Your task to perform on an android device: Check the news Image 0: 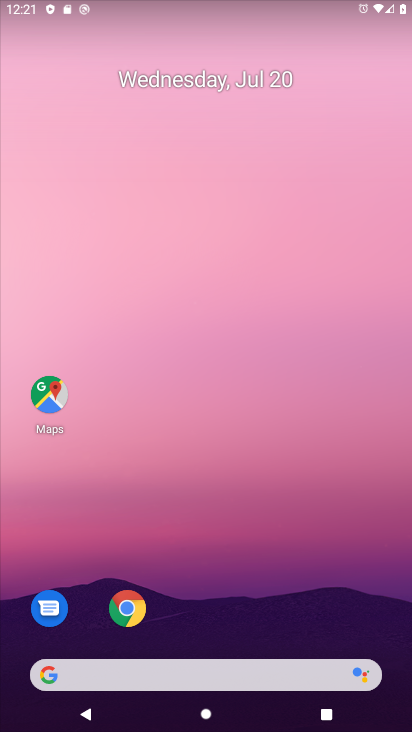
Step 0: drag from (175, 677) to (154, 162)
Your task to perform on an android device: Check the news Image 1: 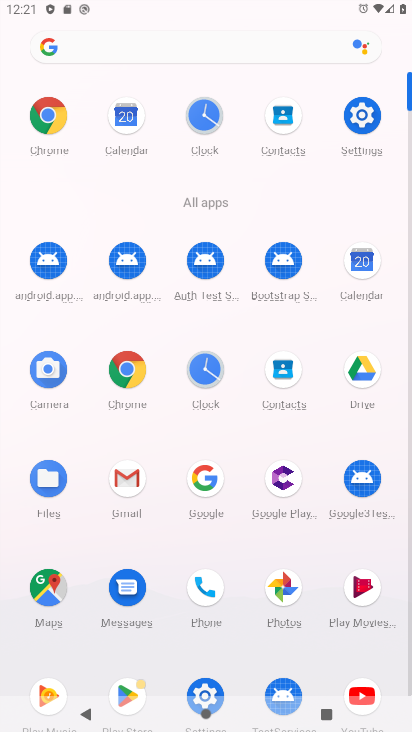
Step 1: click (202, 477)
Your task to perform on an android device: Check the news Image 2: 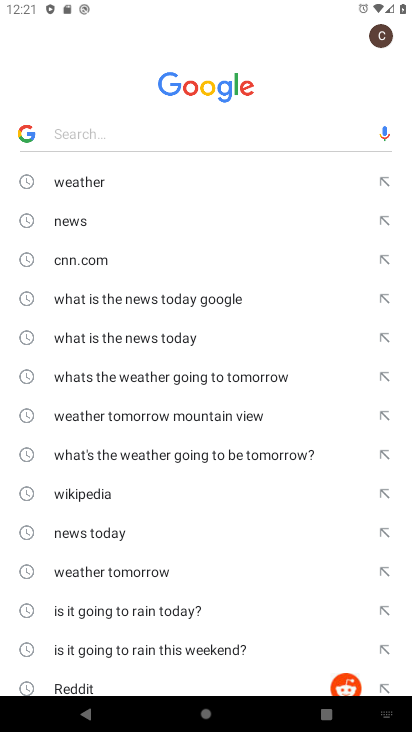
Step 2: click (66, 225)
Your task to perform on an android device: Check the news Image 3: 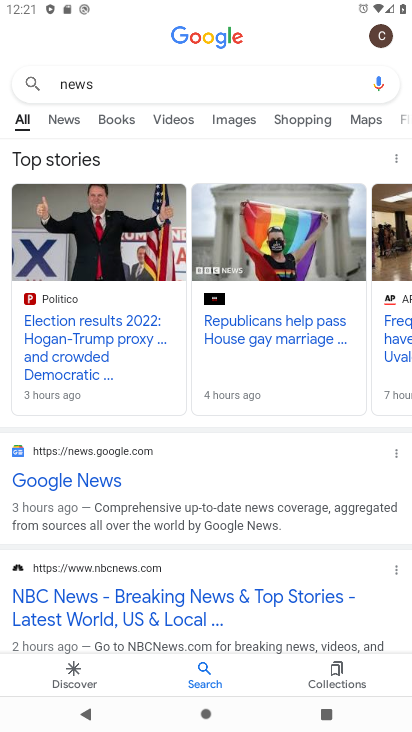
Step 3: click (72, 346)
Your task to perform on an android device: Check the news Image 4: 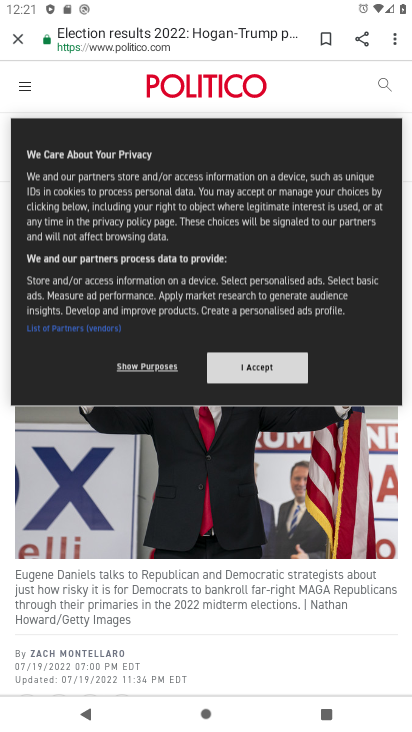
Step 4: task complete